Your task to perform on an android device: turn smart compose on in the gmail app Image 0: 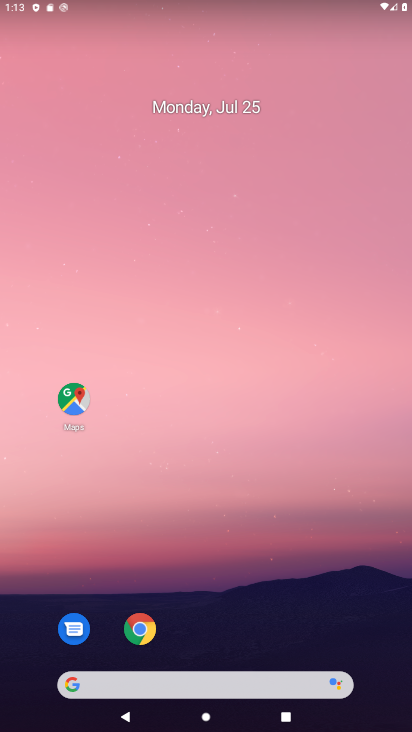
Step 0: drag from (180, 659) to (251, 132)
Your task to perform on an android device: turn smart compose on in the gmail app Image 1: 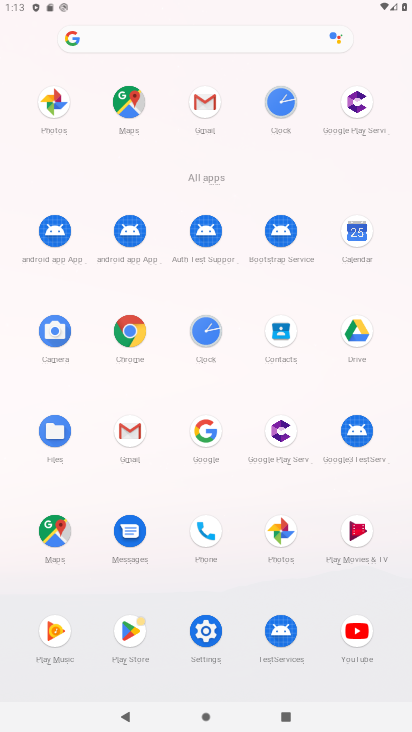
Step 1: click (128, 424)
Your task to perform on an android device: turn smart compose on in the gmail app Image 2: 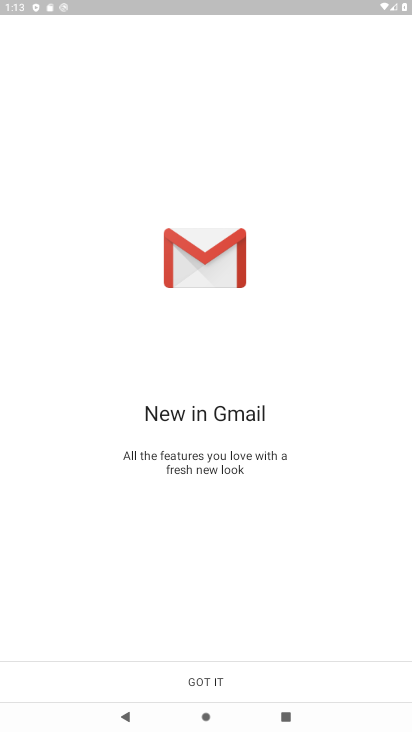
Step 2: click (198, 682)
Your task to perform on an android device: turn smart compose on in the gmail app Image 3: 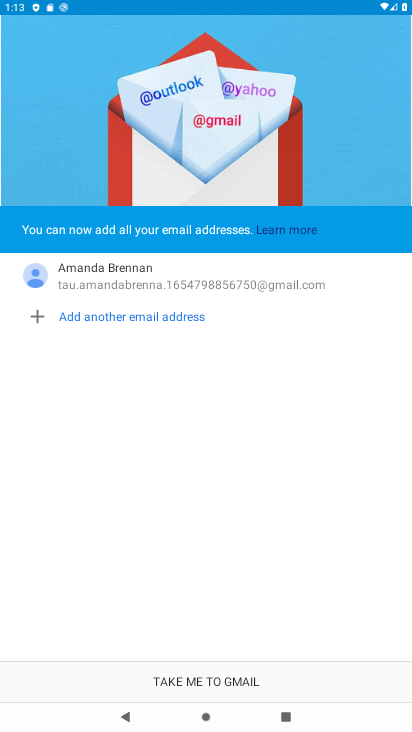
Step 3: click (186, 674)
Your task to perform on an android device: turn smart compose on in the gmail app Image 4: 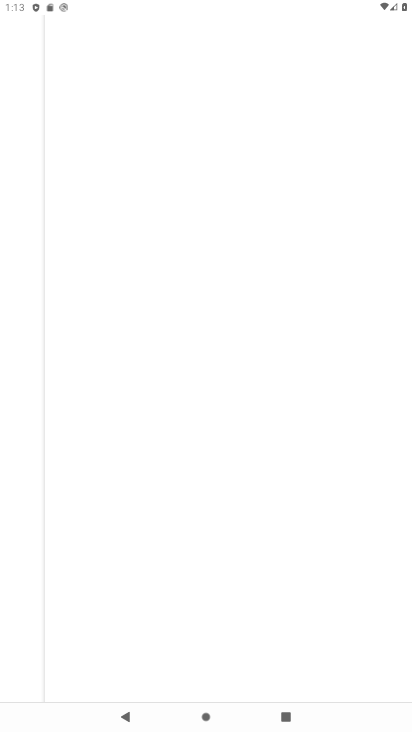
Step 4: drag from (240, 662) to (265, 143)
Your task to perform on an android device: turn smart compose on in the gmail app Image 5: 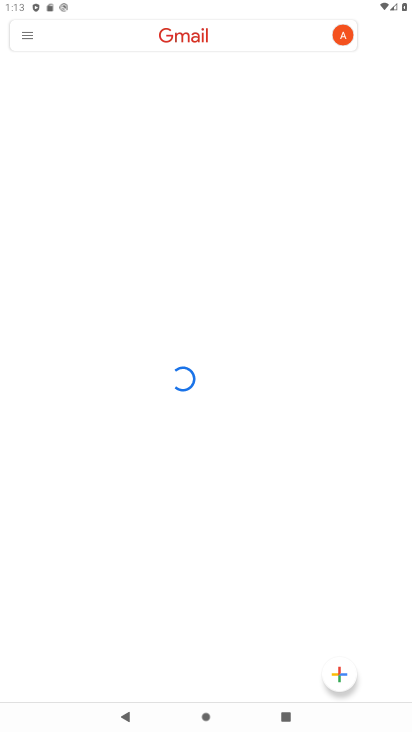
Step 5: drag from (226, 563) to (244, 368)
Your task to perform on an android device: turn smart compose on in the gmail app Image 6: 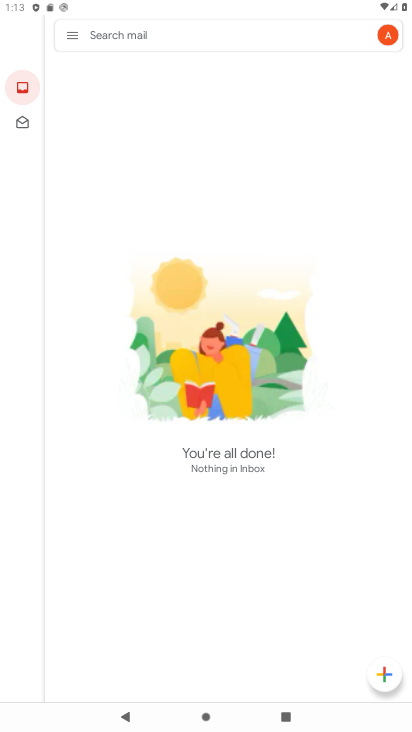
Step 6: drag from (197, 575) to (247, 308)
Your task to perform on an android device: turn smart compose on in the gmail app Image 7: 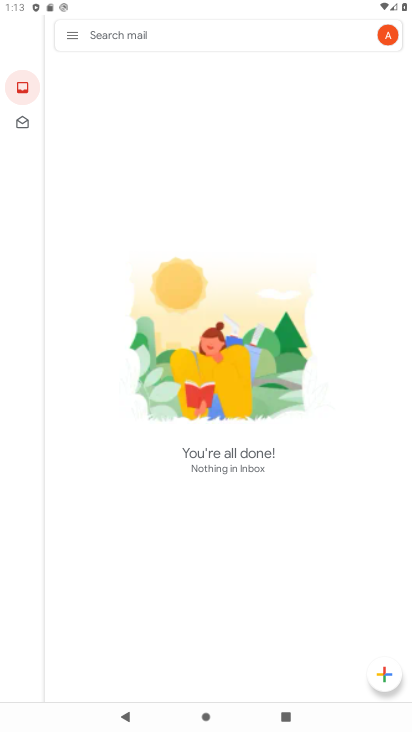
Step 7: drag from (196, 578) to (197, 434)
Your task to perform on an android device: turn smart compose on in the gmail app Image 8: 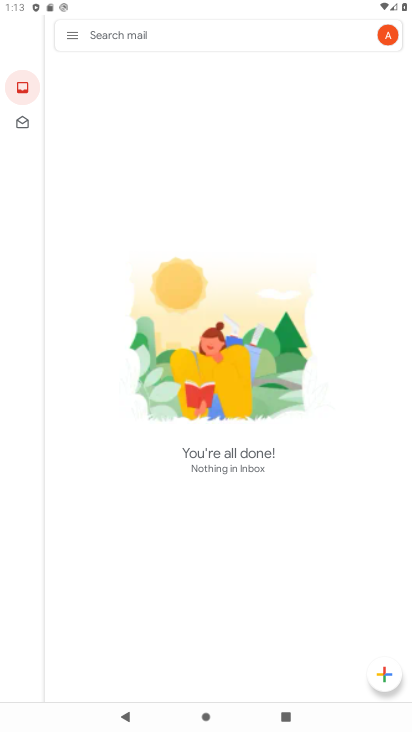
Step 8: click (69, 36)
Your task to perform on an android device: turn smart compose on in the gmail app Image 9: 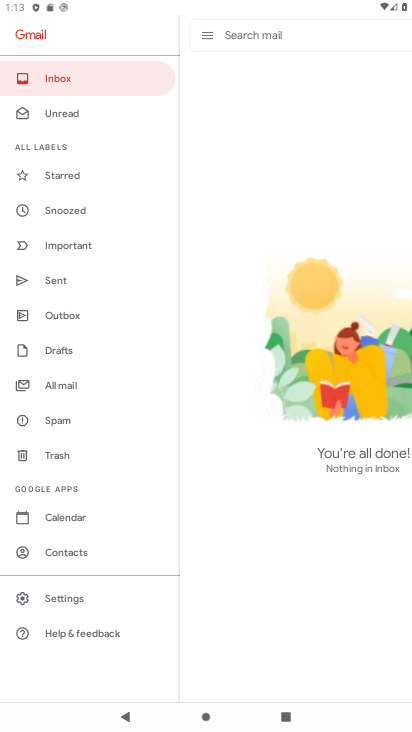
Step 9: click (67, 593)
Your task to perform on an android device: turn smart compose on in the gmail app Image 10: 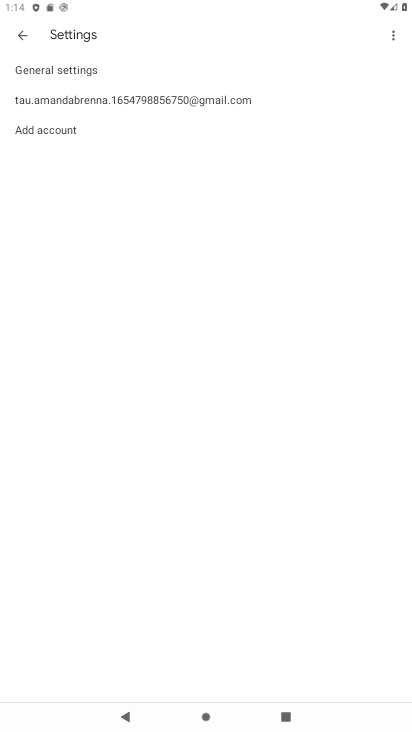
Step 10: click (181, 93)
Your task to perform on an android device: turn smart compose on in the gmail app Image 11: 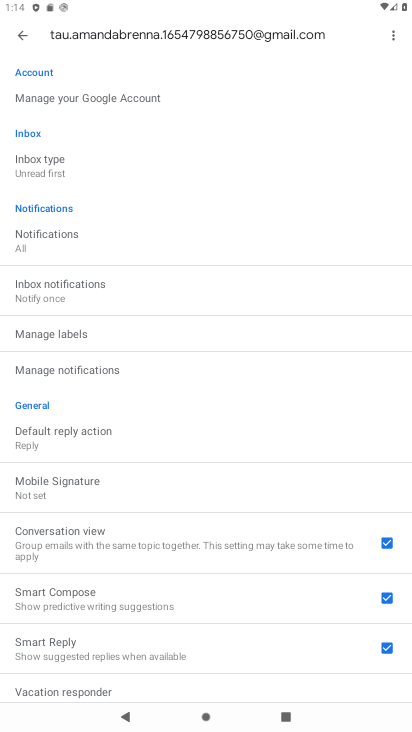
Step 11: task complete